Your task to perform on an android device: install app "Flipkart Online Shopping App" Image 0: 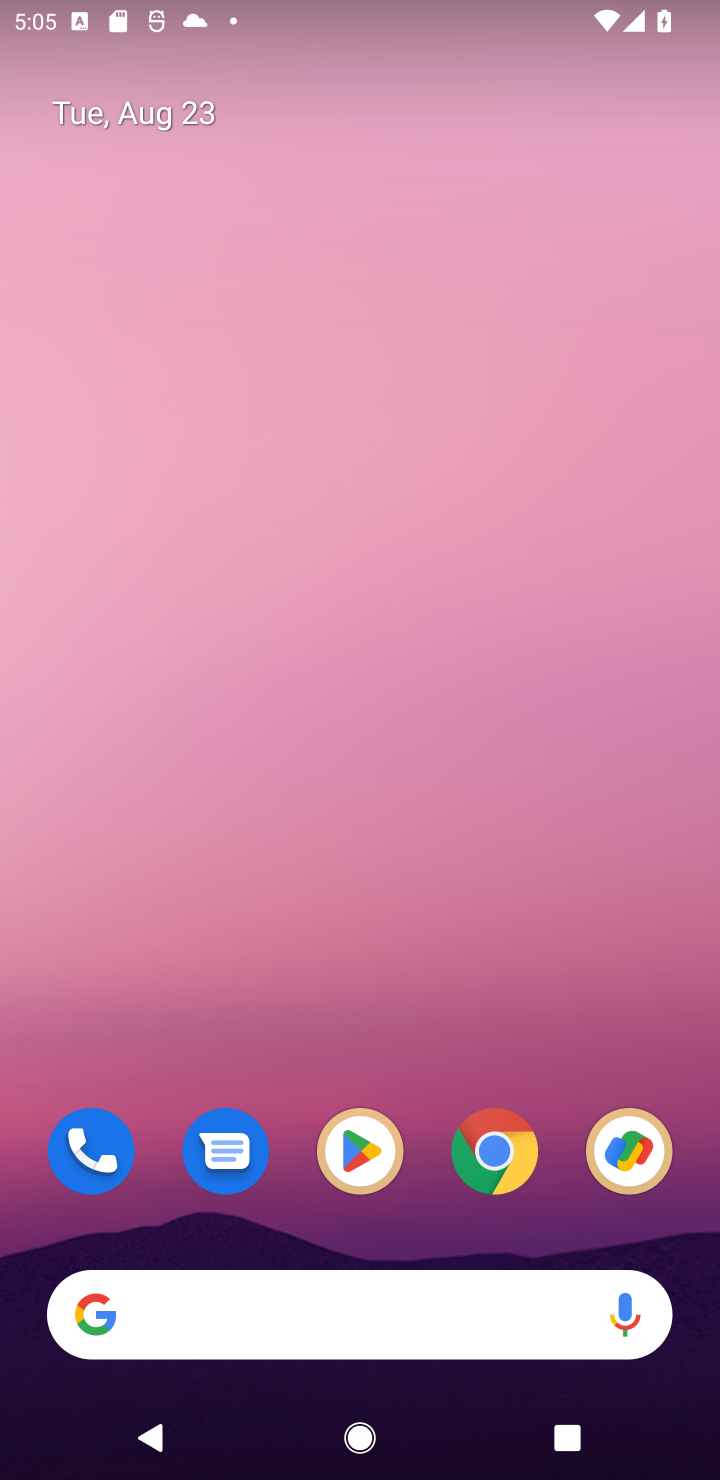
Step 0: click (350, 1151)
Your task to perform on an android device: install app "Flipkart Online Shopping App" Image 1: 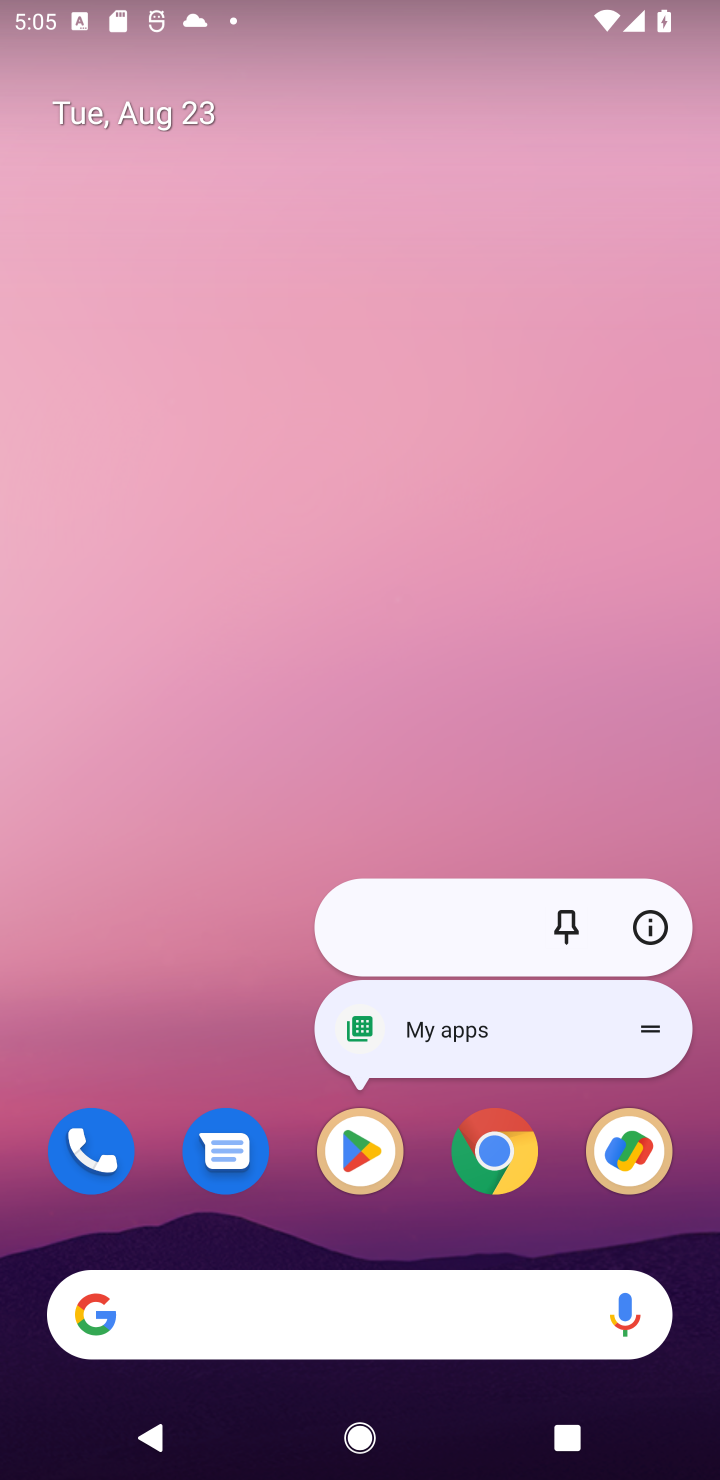
Step 1: click (359, 1153)
Your task to perform on an android device: install app "Flipkart Online Shopping App" Image 2: 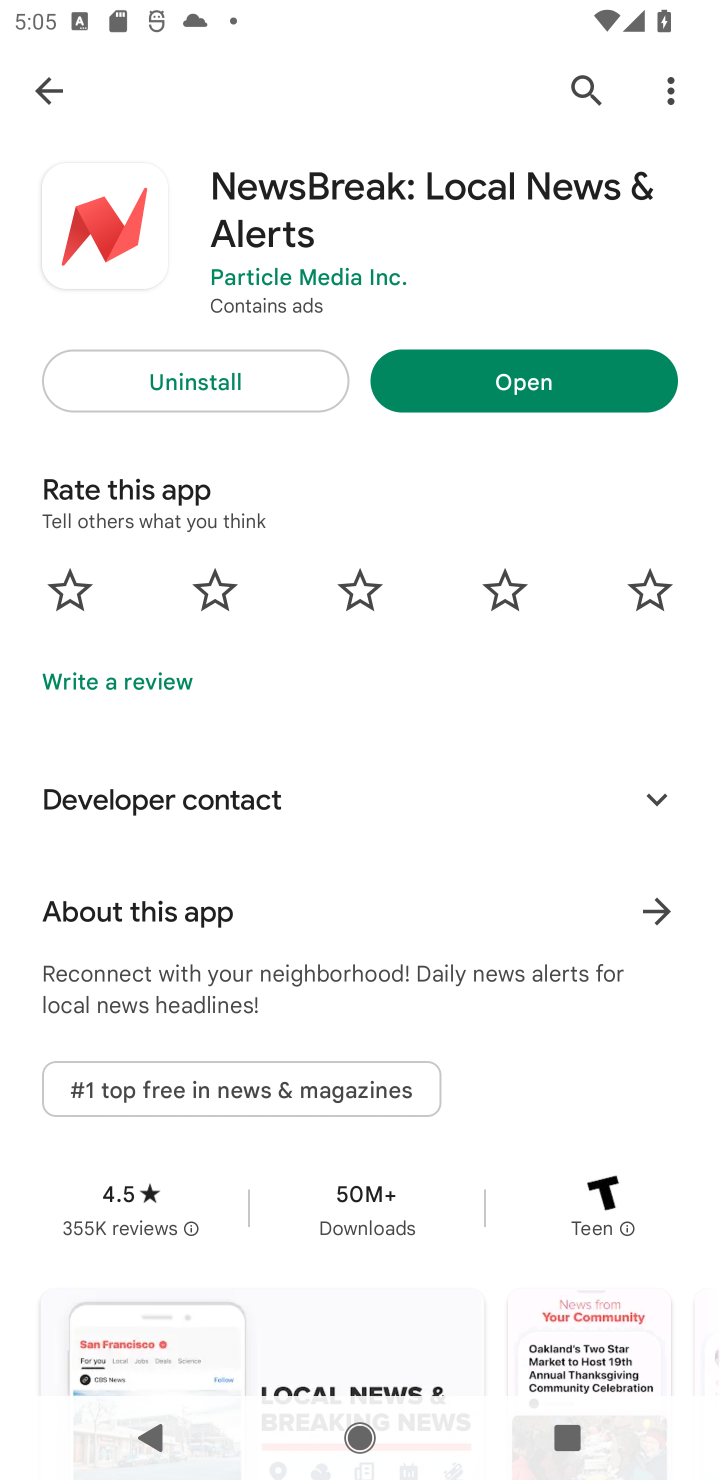
Step 2: click (579, 85)
Your task to perform on an android device: install app "Flipkart Online Shopping App" Image 3: 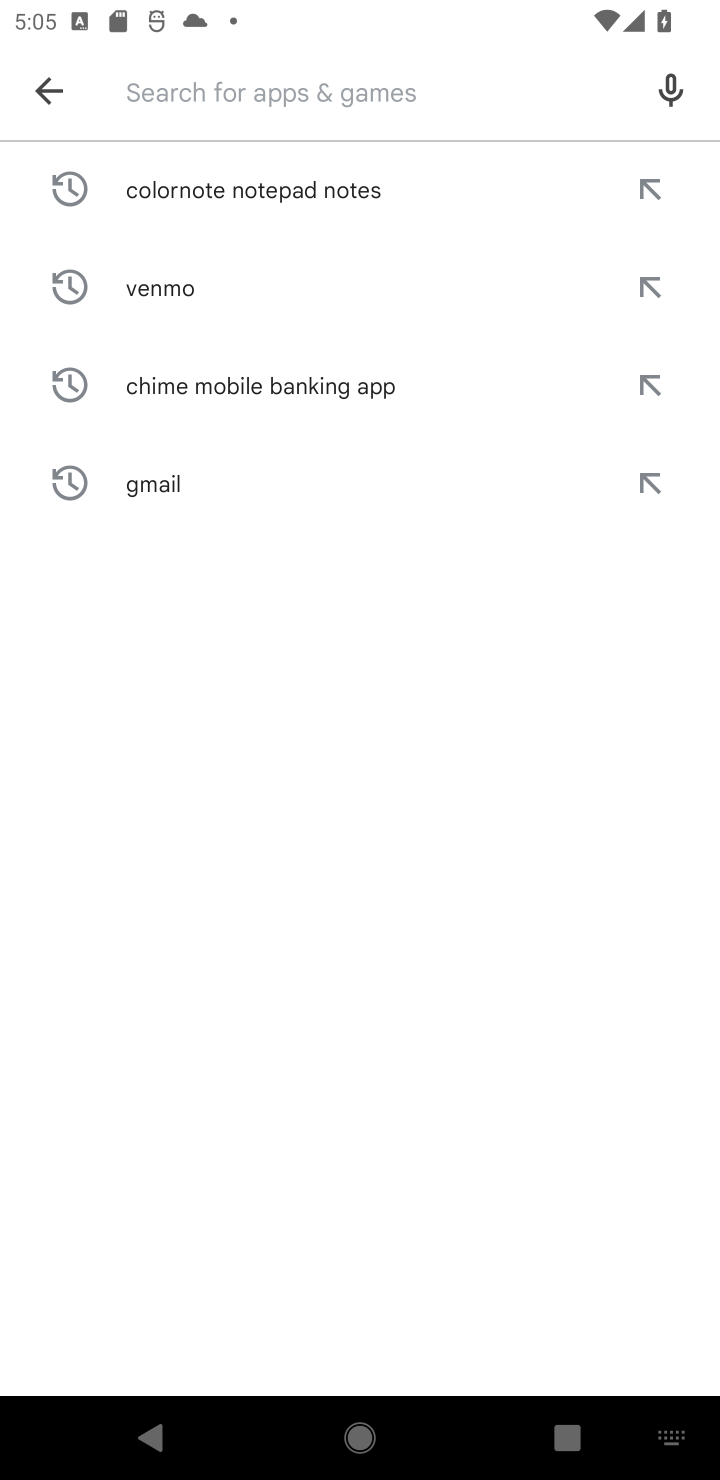
Step 3: type "Flipkart Online Shopping App"
Your task to perform on an android device: install app "Flipkart Online Shopping App" Image 4: 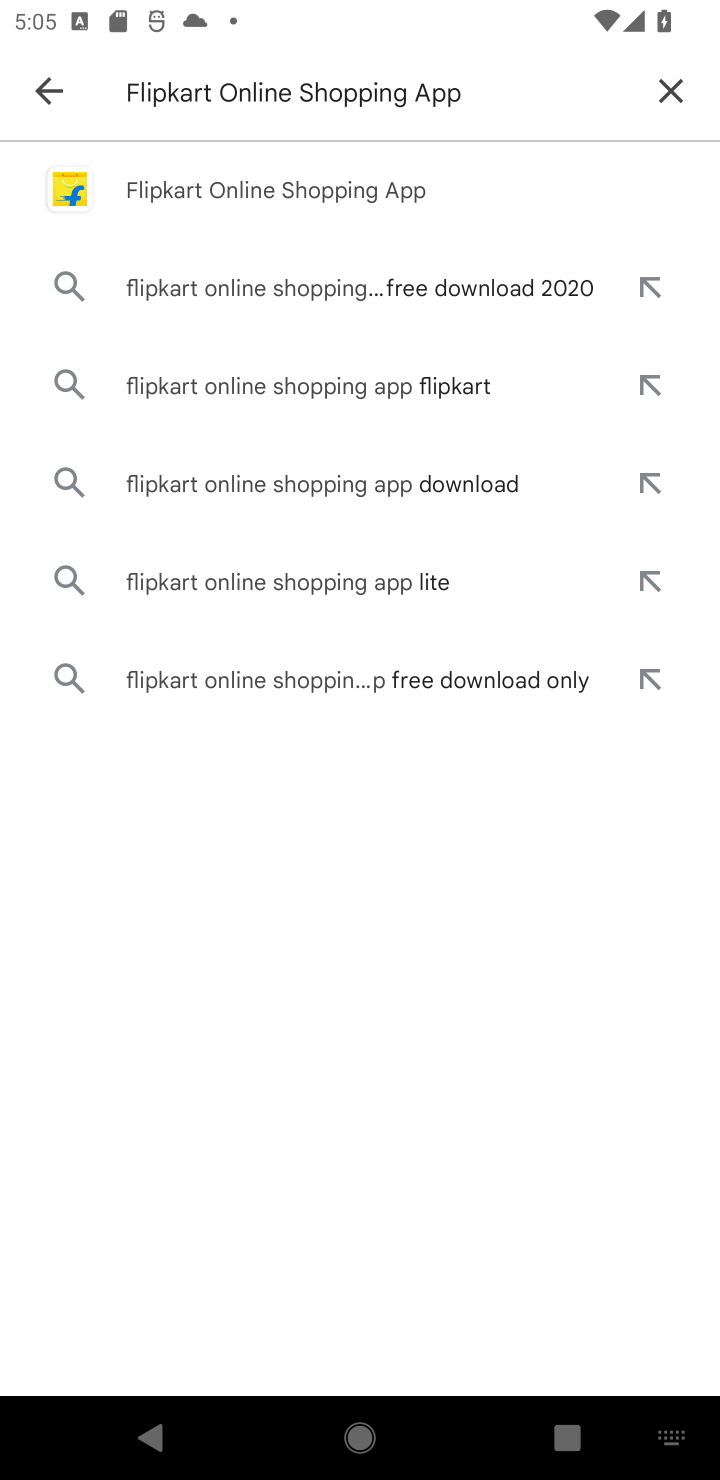
Step 4: click (360, 179)
Your task to perform on an android device: install app "Flipkart Online Shopping App" Image 5: 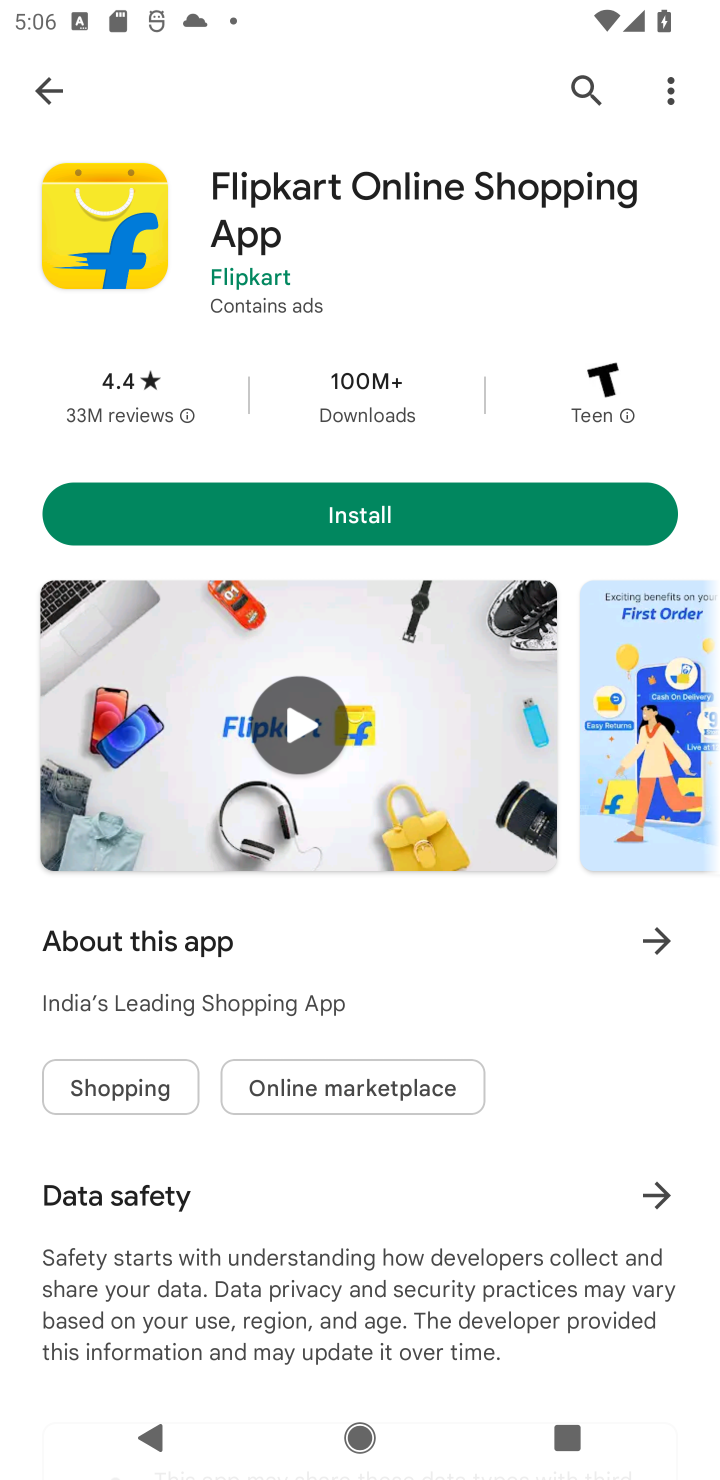
Step 5: click (373, 519)
Your task to perform on an android device: install app "Flipkart Online Shopping App" Image 6: 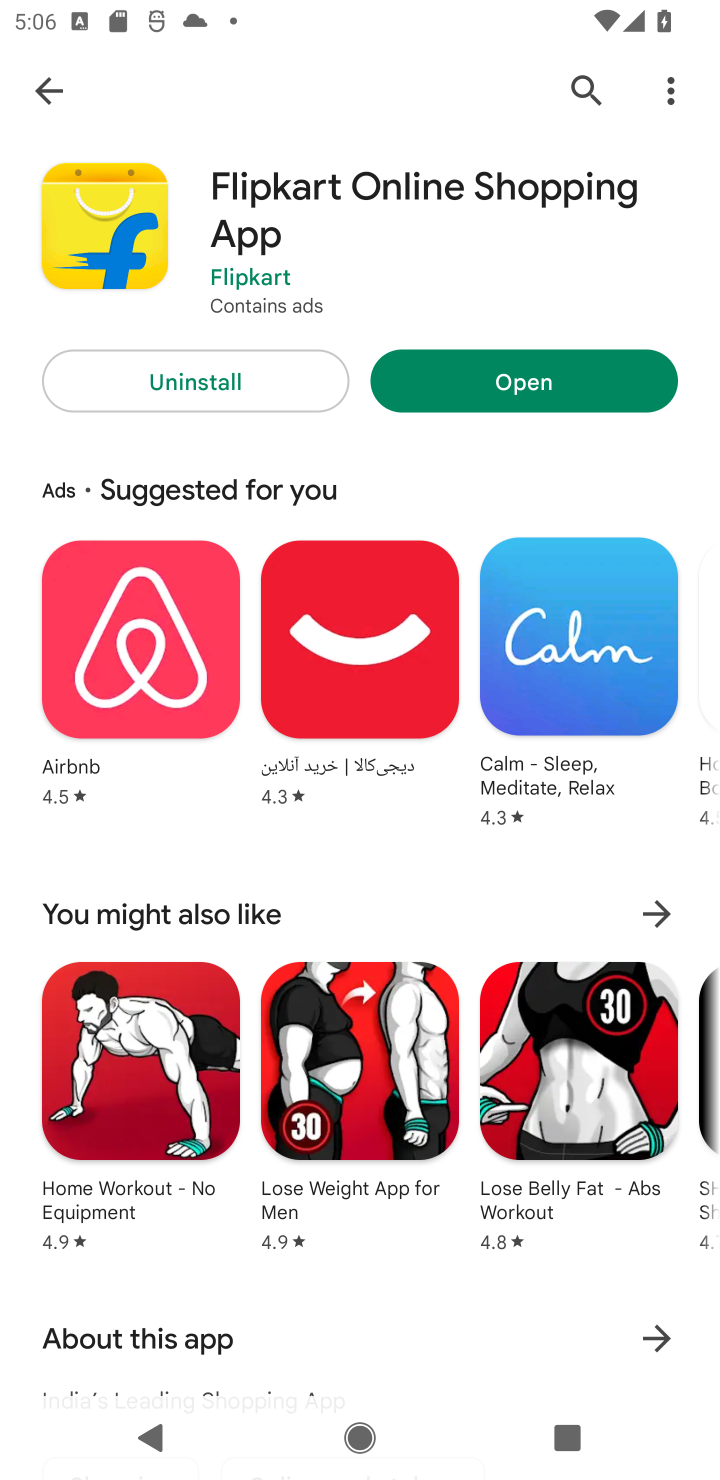
Step 6: task complete